Your task to perform on an android device: toggle notification dots Image 0: 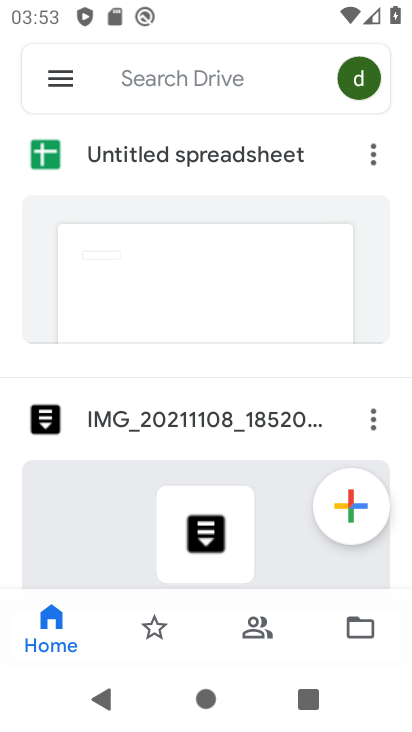
Step 0: press home button
Your task to perform on an android device: toggle notification dots Image 1: 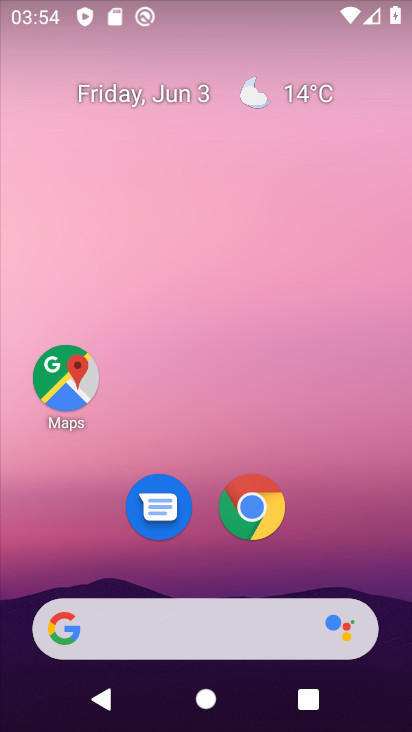
Step 1: drag from (309, 577) to (281, 24)
Your task to perform on an android device: toggle notification dots Image 2: 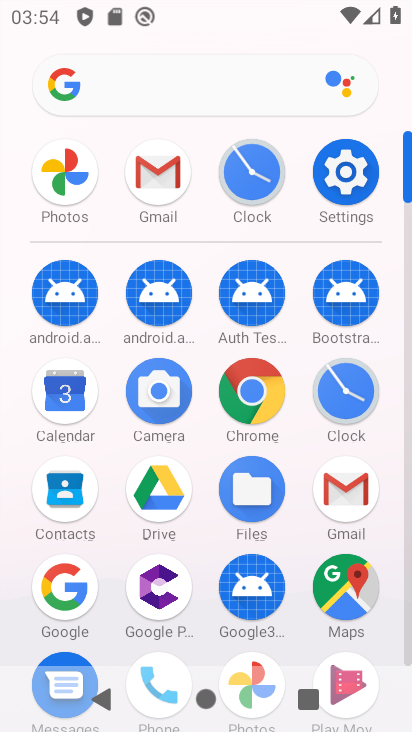
Step 2: click (345, 187)
Your task to perform on an android device: toggle notification dots Image 3: 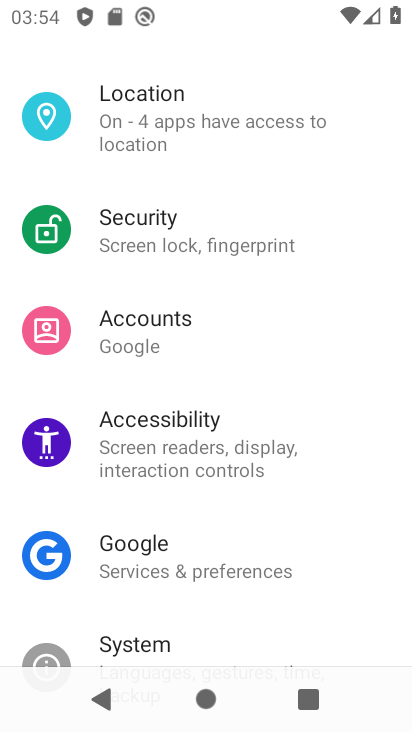
Step 3: drag from (303, 590) to (241, 183)
Your task to perform on an android device: toggle notification dots Image 4: 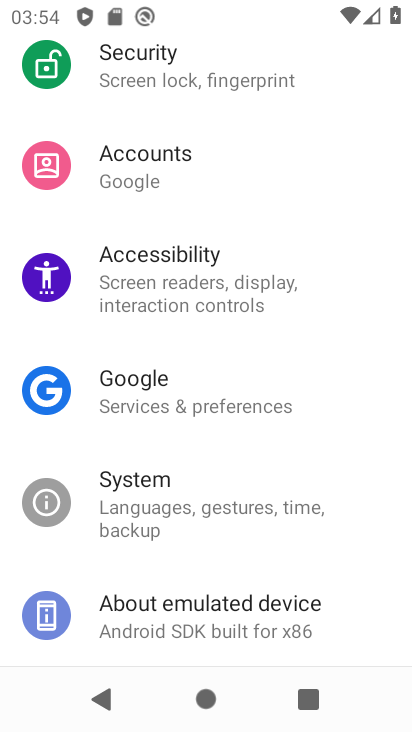
Step 4: drag from (258, 146) to (329, 724)
Your task to perform on an android device: toggle notification dots Image 5: 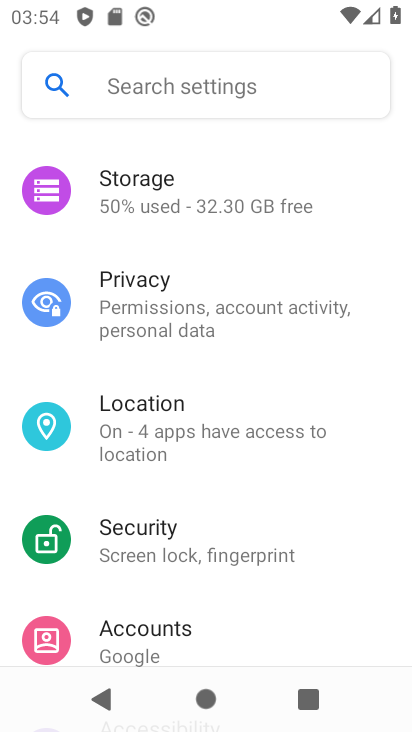
Step 5: drag from (300, 265) to (321, 701)
Your task to perform on an android device: toggle notification dots Image 6: 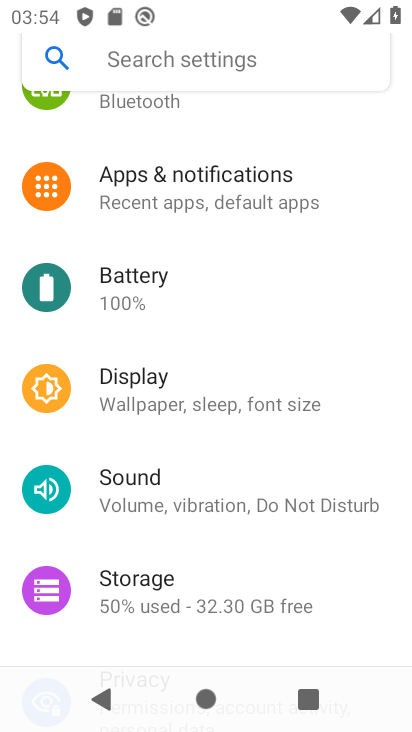
Step 6: click (206, 210)
Your task to perform on an android device: toggle notification dots Image 7: 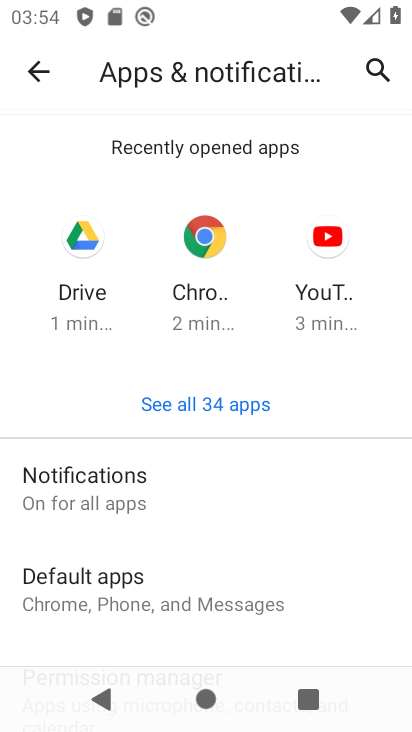
Step 7: click (88, 481)
Your task to perform on an android device: toggle notification dots Image 8: 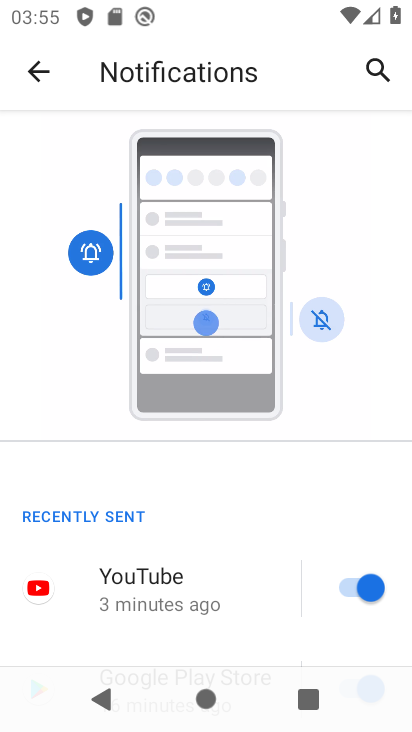
Step 8: drag from (127, 512) to (128, 51)
Your task to perform on an android device: toggle notification dots Image 9: 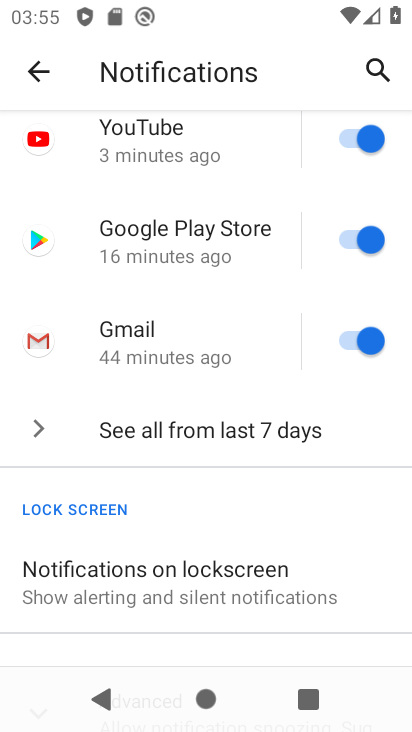
Step 9: drag from (201, 540) to (197, 201)
Your task to perform on an android device: toggle notification dots Image 10: 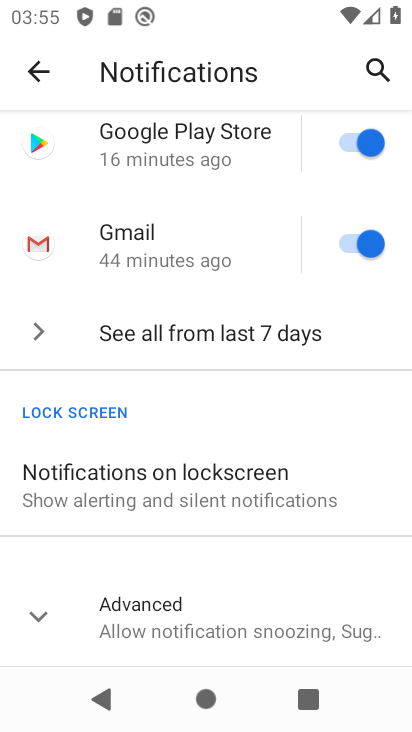
Step 10: click (155, 625)
Your task to perform on an android device: toggle notification dots Image 11: 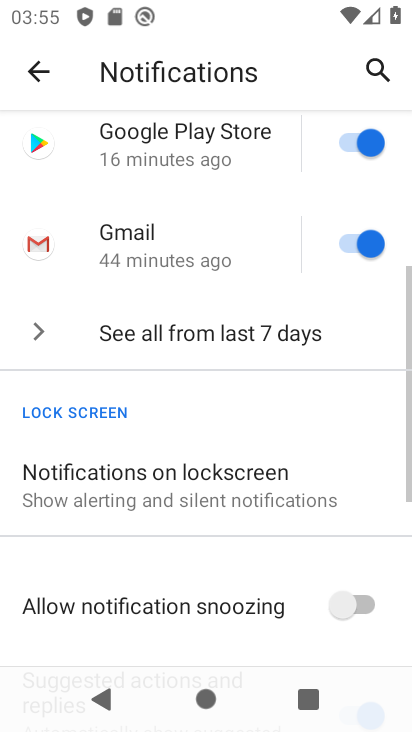
Step 11: drag from (225, 563) to (227, 101)
Your task to perform on an android device: toggle notification dots Image 12: 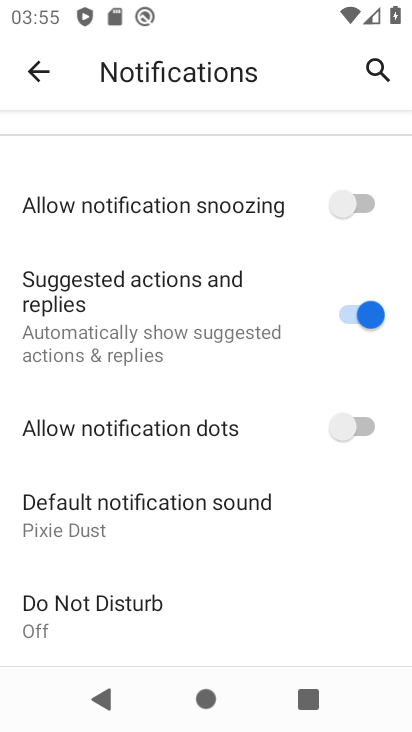
Step 12: click (341, 426)
Your task to perform on an android device: toggle notification dots Image 13: 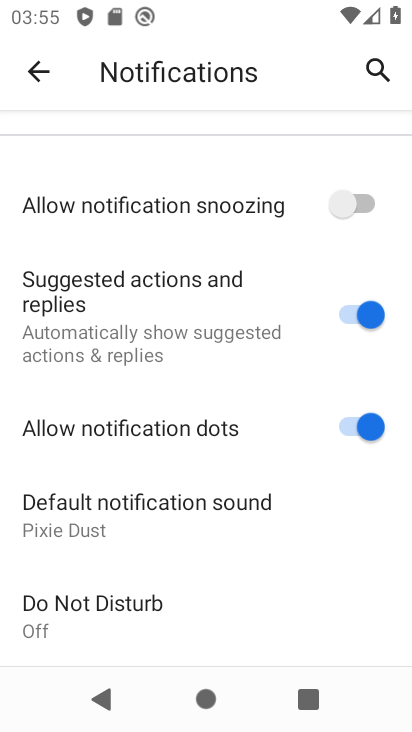
Step 13: task complete